Your task to perform on an android device: When is my next appointment? Image 0: 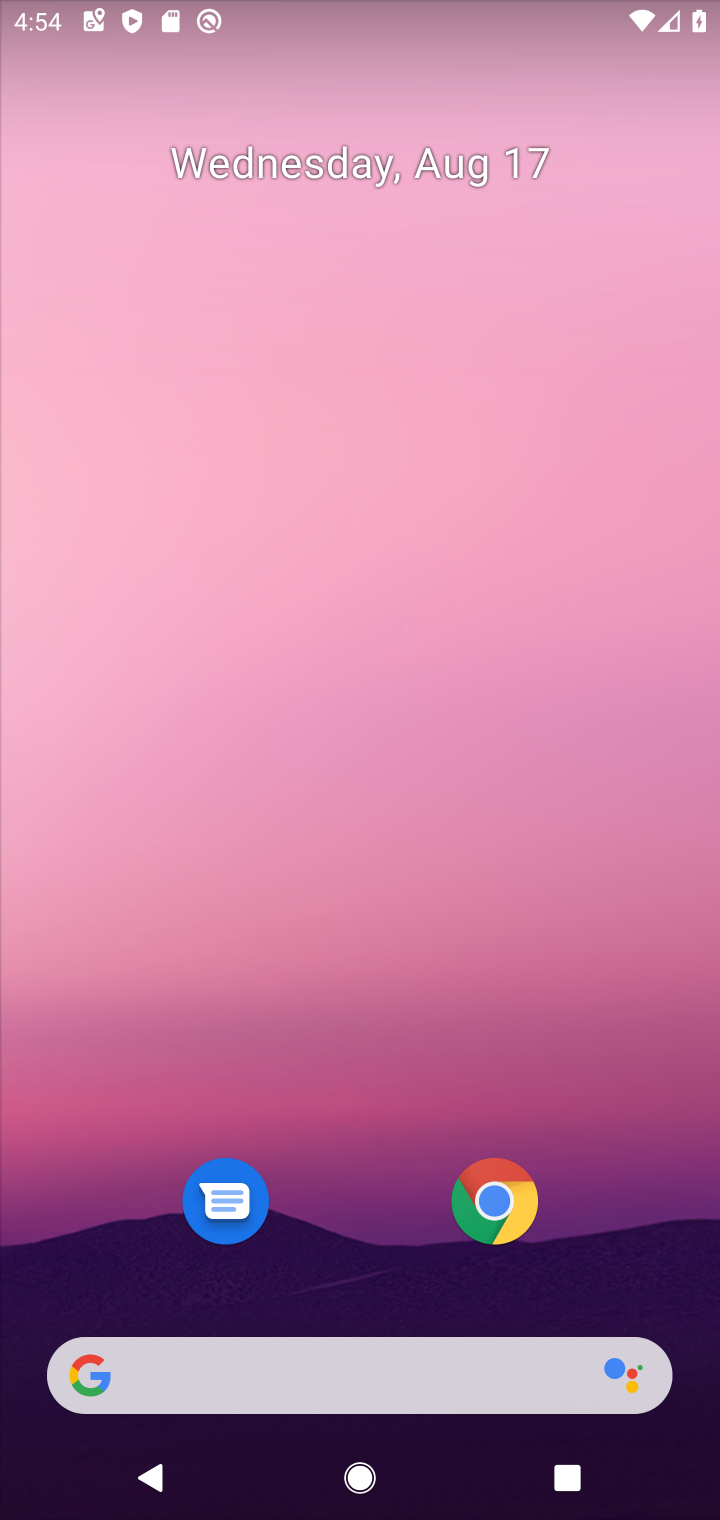
Step 0: drag from (318, 1150) to (372, 35)
Your task to perform on an android device: When is my next appointment? Image 1: 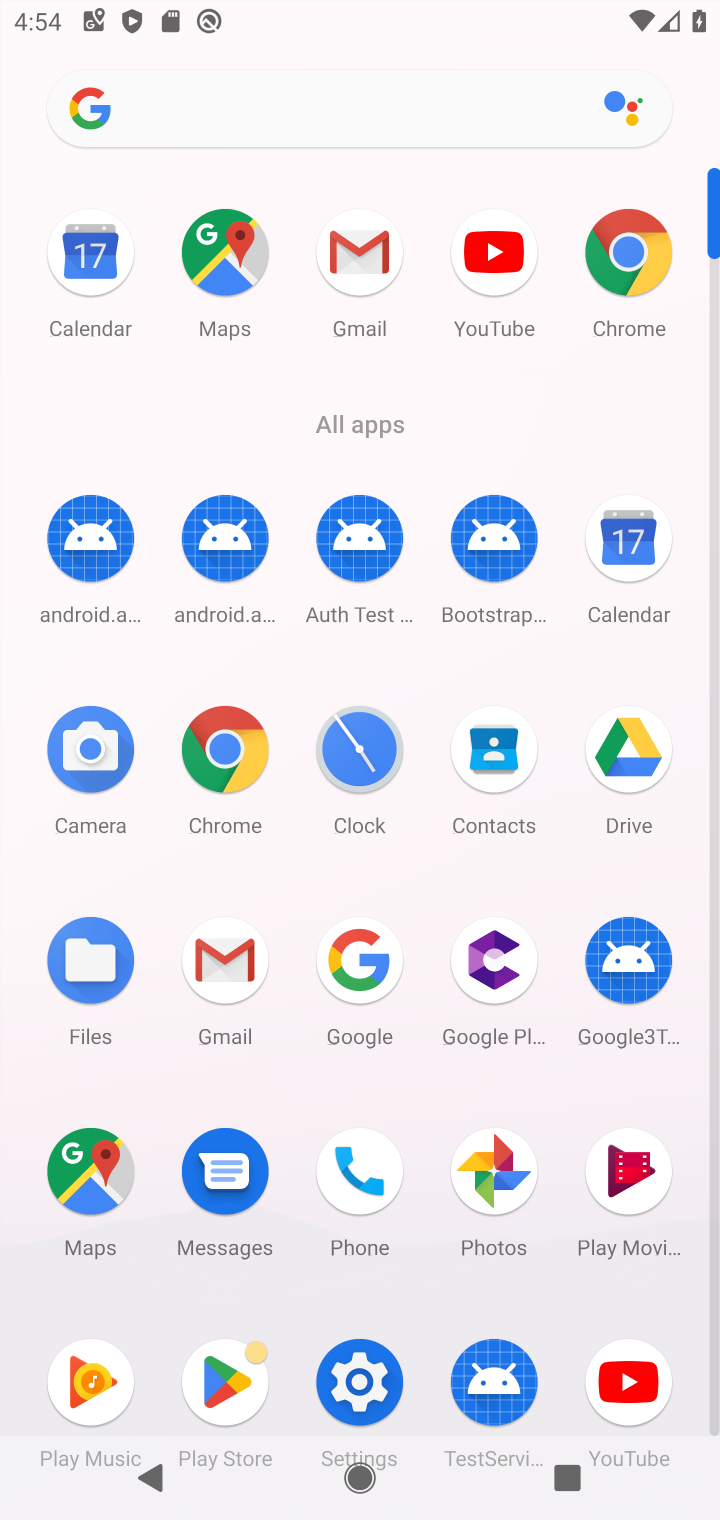
Step 1: click (79, 445)
Your task to perform on an android device: When is my next appointment? Image 2: 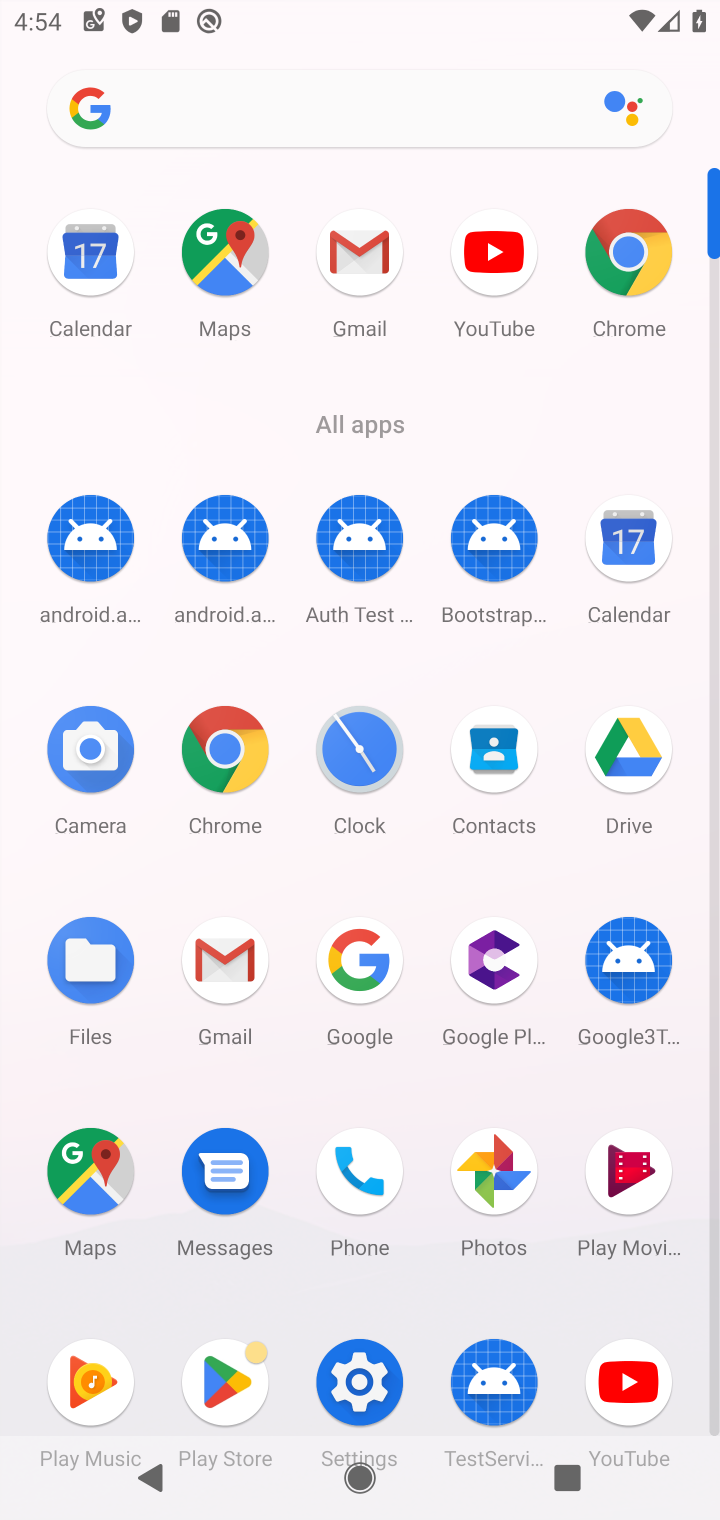
Step 2: click (80, 269)
Your task to perform on an android device: When is my next appointment? Image 3: 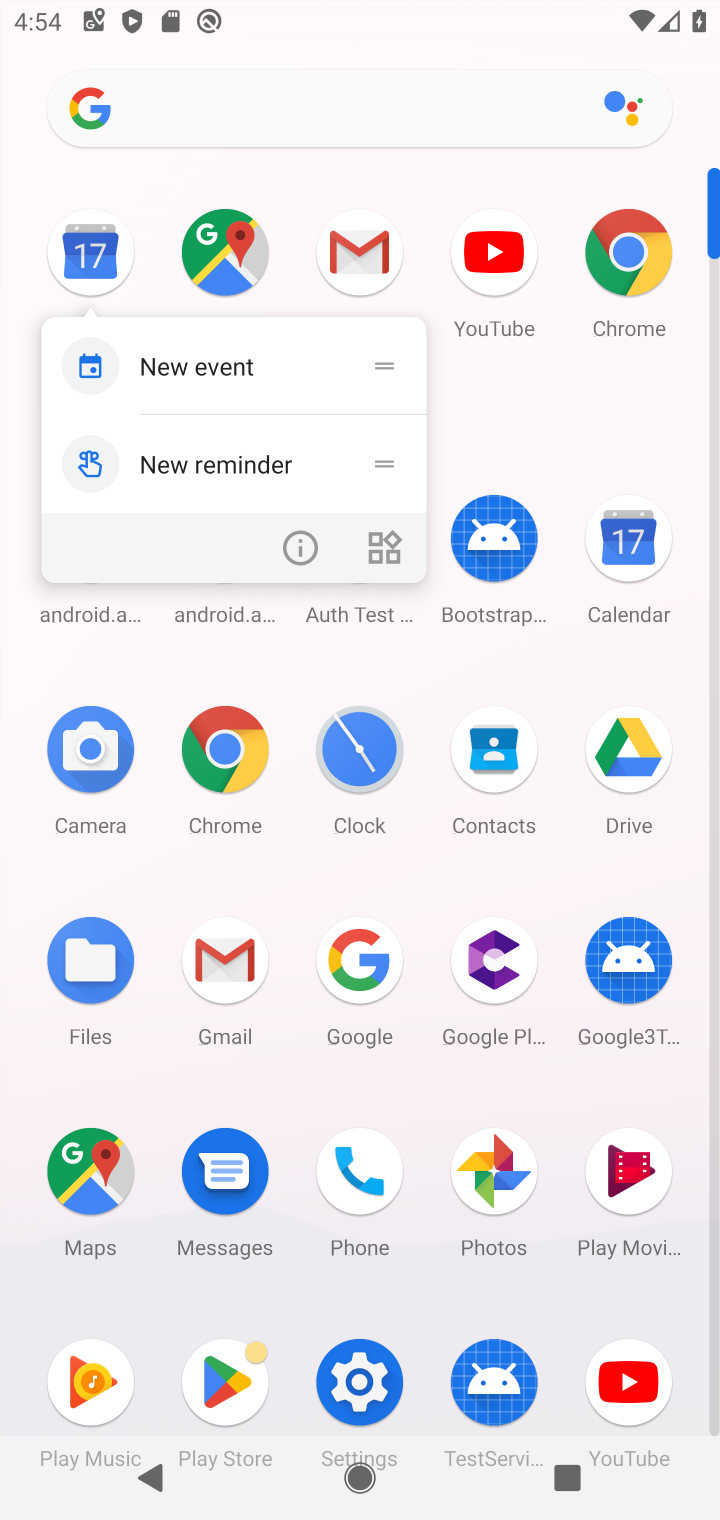
Step 3: click (71, 276)
Your task to perform on an android device: When is my next appointment? Image 4: 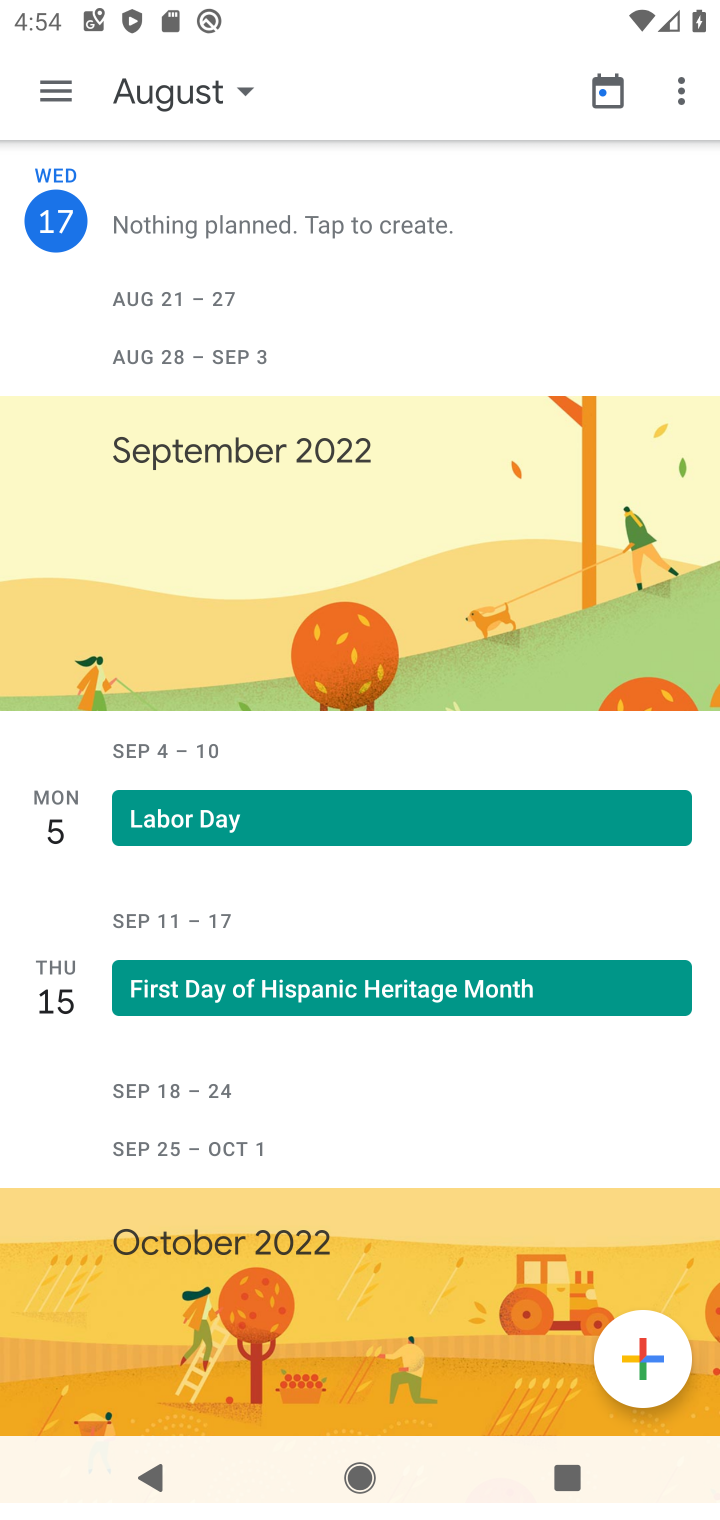
Step 4: click (69, 101)
Your task to perform on an android device: When is my next appointment? Image 5: 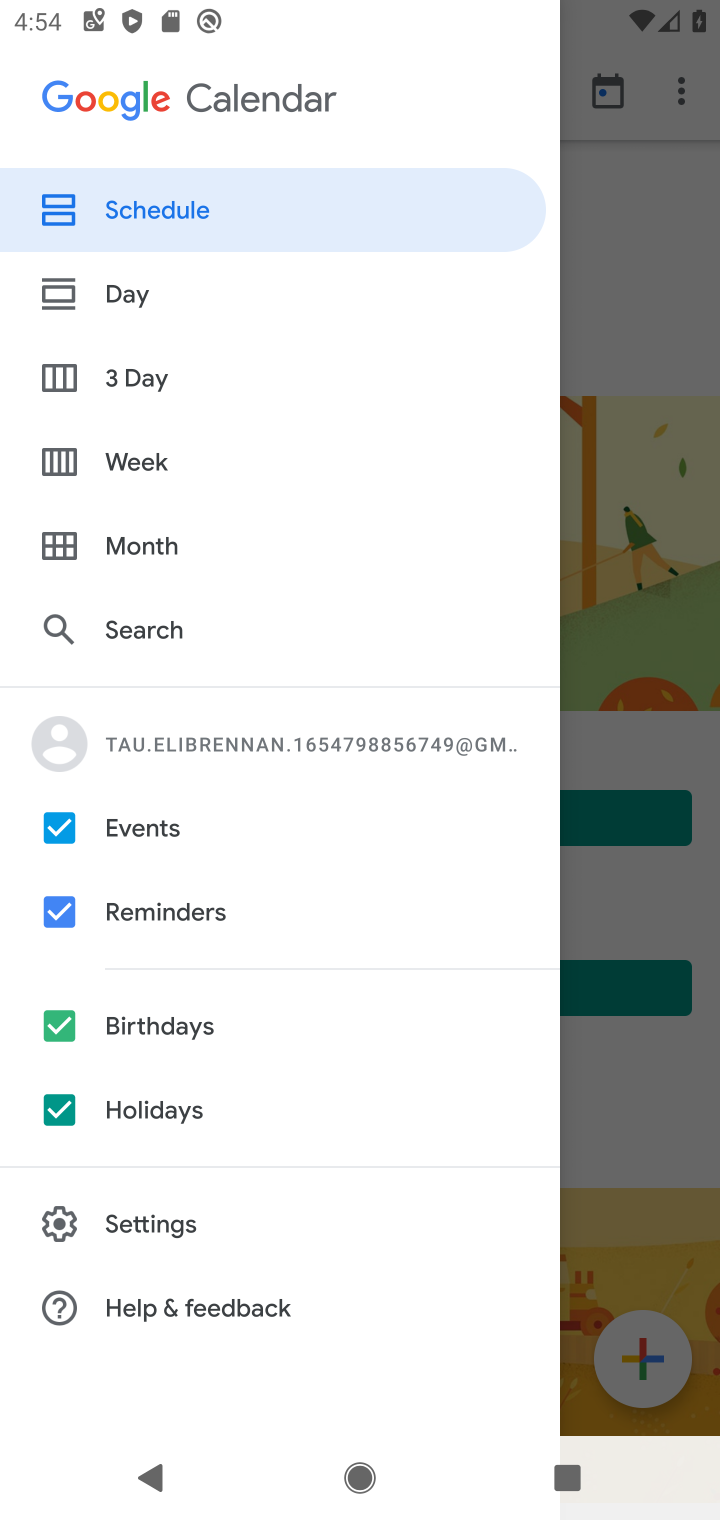
Step 5: click (266, 199)
Your task to perform on an android device: When is my next appointment? Image 6: 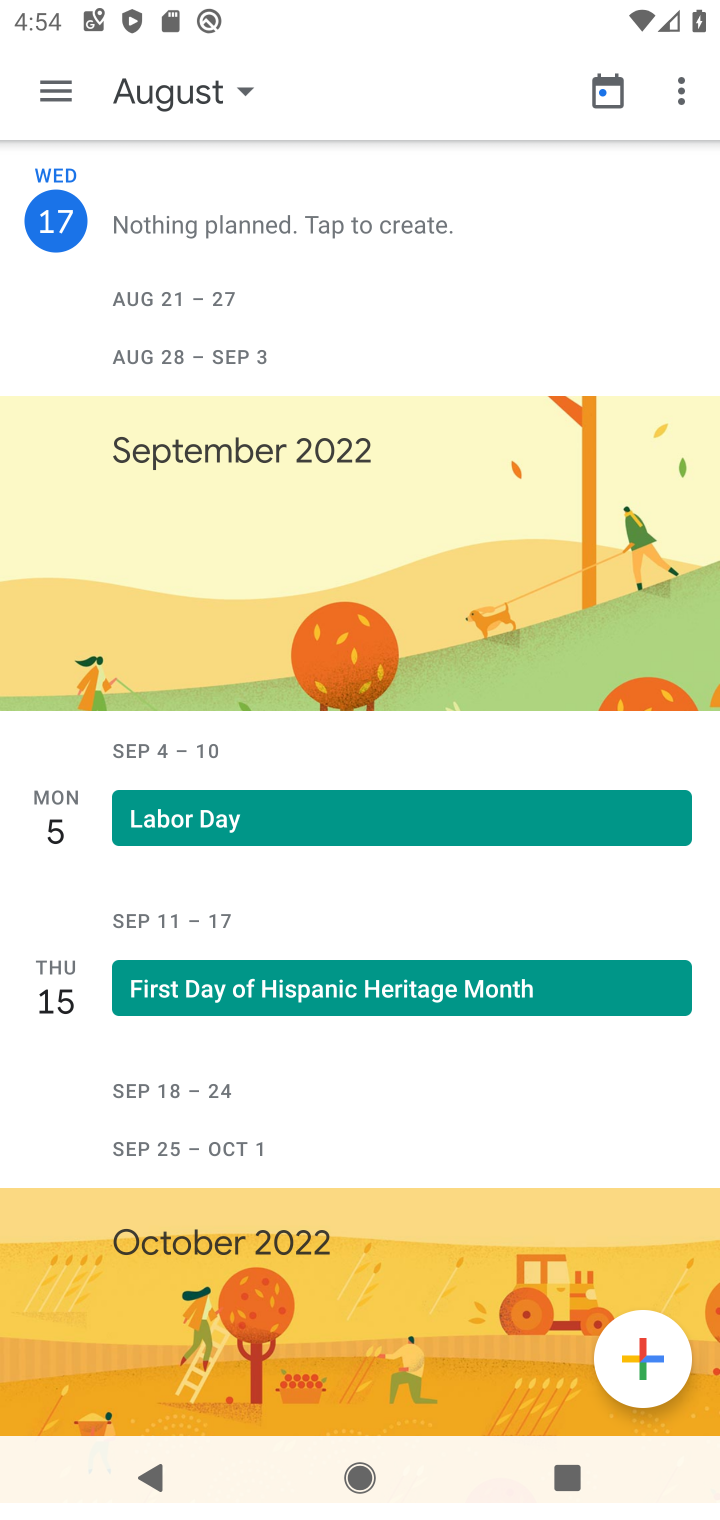
Step 6: task complete